Your task to perform on an android device: Set the phone to "Do not disturb". Image 0: 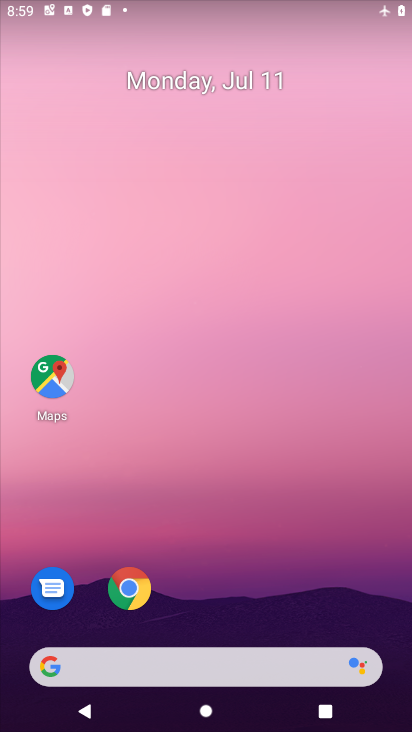
Step 0: drag from (212, 2) to (311, 692)
Your task to perform on an android device: Set the phone to "Do not disturb". Image 1: 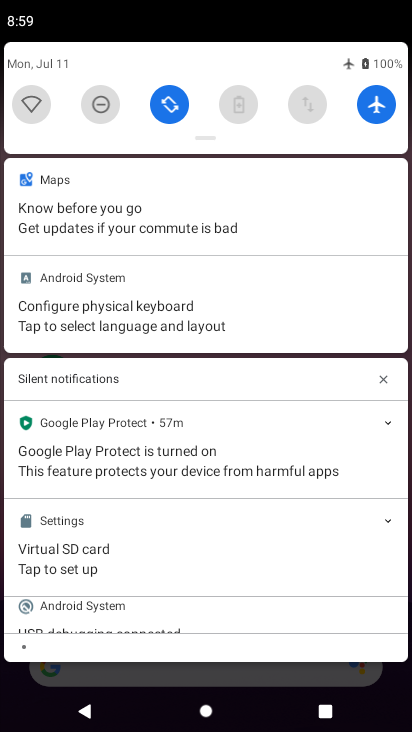
Step 1: click (99, 101)
Your task to perform on an android device: Set the phone to "Do not disturb". Image 2: 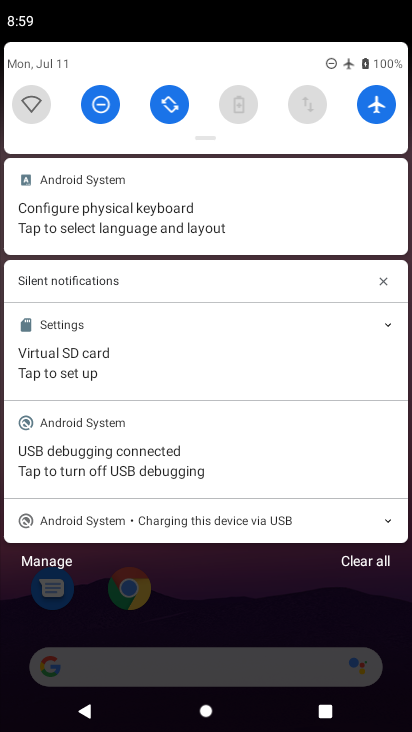
Step 2: task complete